Your task to perform on an android device: Open the calendar and show me this week's events? Image 0: 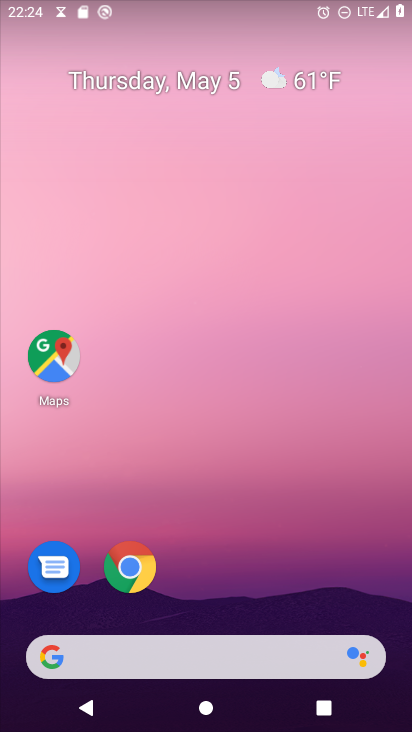
Step 0: drag from (207, 729) to (195, 158)
Your task to perform on an android device: Open the calendar and show me this week's events? Image 1: 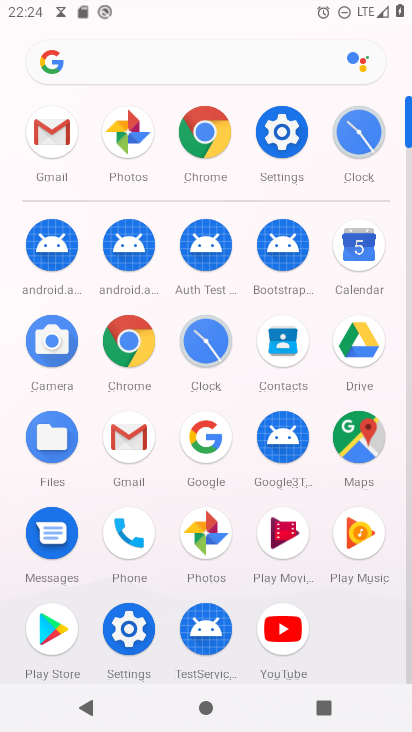
Step 1: click (358, 252)
Your task to perform on an android device: Open the calendar and show me this week's events? Image 2: 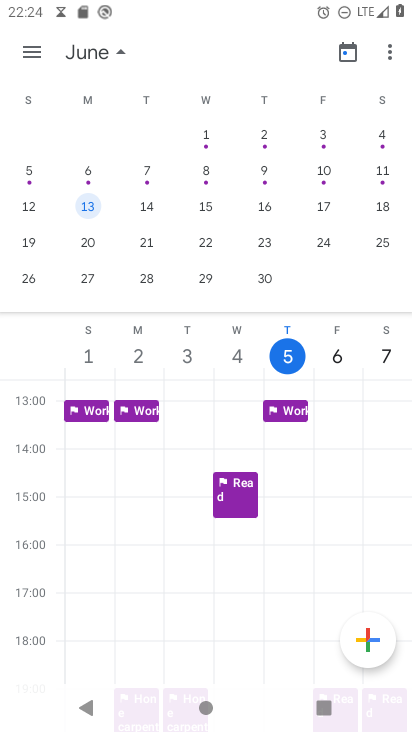
Step 2: drag from (85, 177) to (359, 181)
Your task to perform on an android device: Open the calendar and show me this week's events? Image 3: 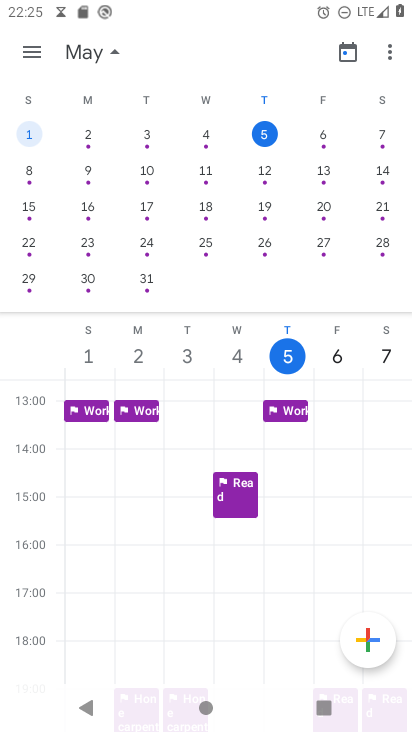
Step 3: click (29, 46)
Your task to perform on an android device: Open the calendar and show me this week's events? Image 4: 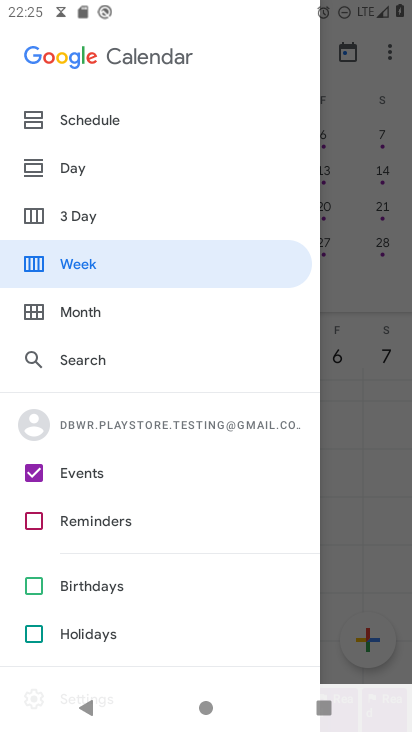
Step 4: click (83, 261)
Your task to perform on an android device: Open the calendar and show me this week's events? Image 5: 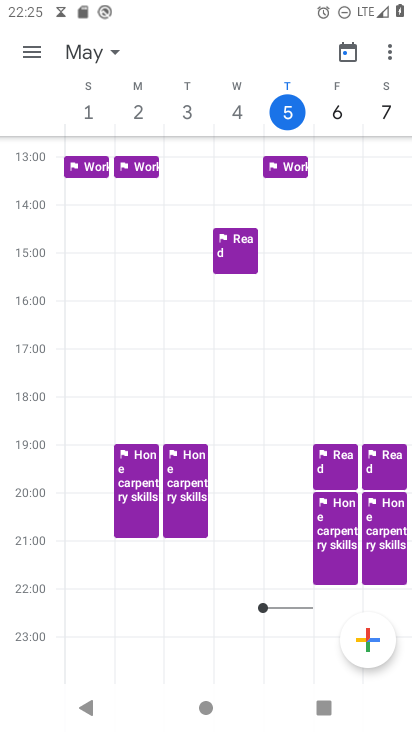
Step 5: task complete